Your task to perform on an android device: find snoozed emails in the gmail app Image 0: 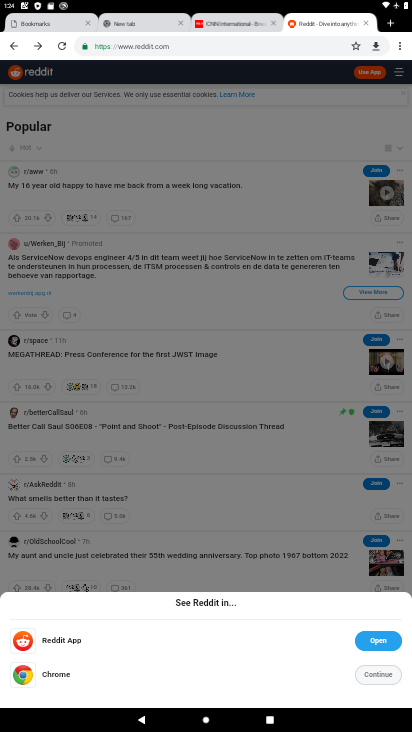
Step 0: press home button
Your task to perform on an android device: find snoozed emails in the gmail app Image 1: 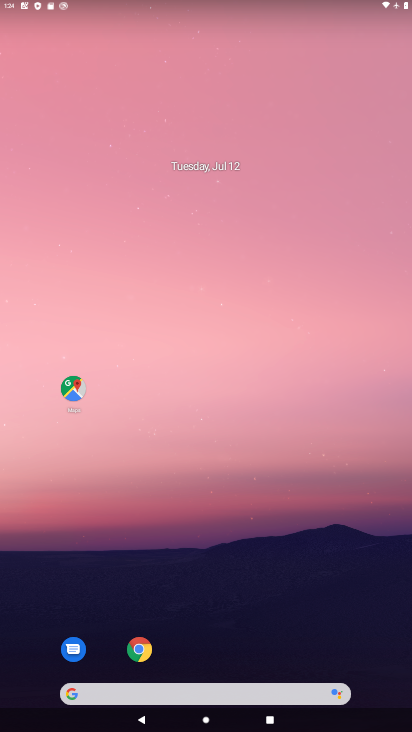
Step 1: drag from (311, 655) to (235, 8)
Your task to perform on an android device: find snoozed emails in the gmail app Image 2: 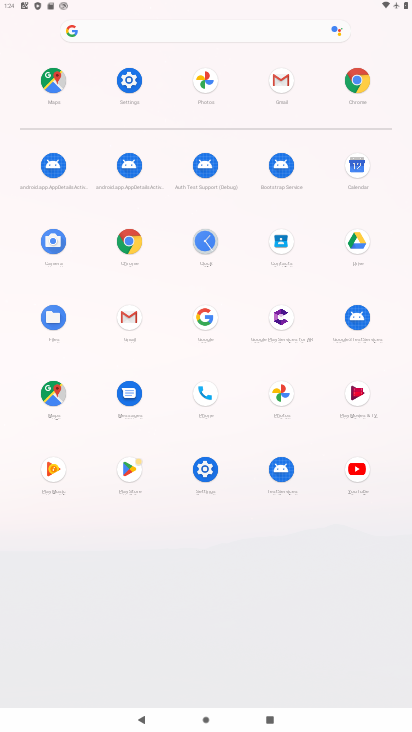
Step 2: click (134, 99)
Your task to perform on an android device: find snoozed emails in the gmail app Image 3: 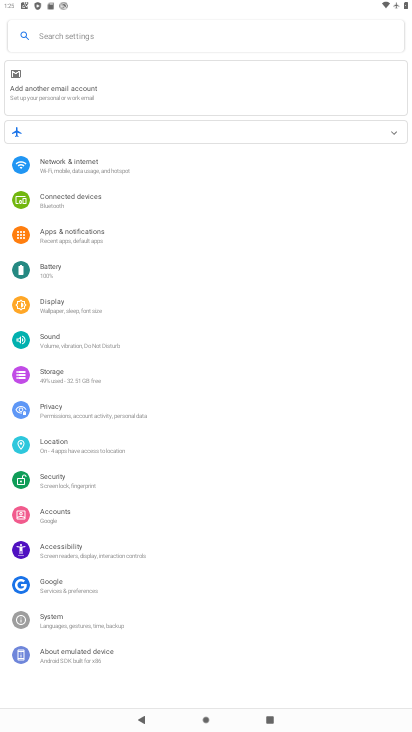
Step 3: press home button
Your task to perform on an android device: find snoozed emails in the gmail app Image 4: 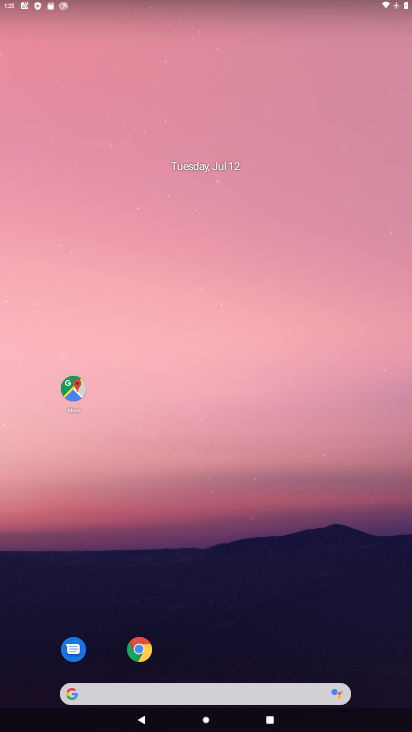
Step 4: drag from (289, 653) to (240, 44)
Your task to perform on an android device: find snoozed emails in the gmail app Image 5: 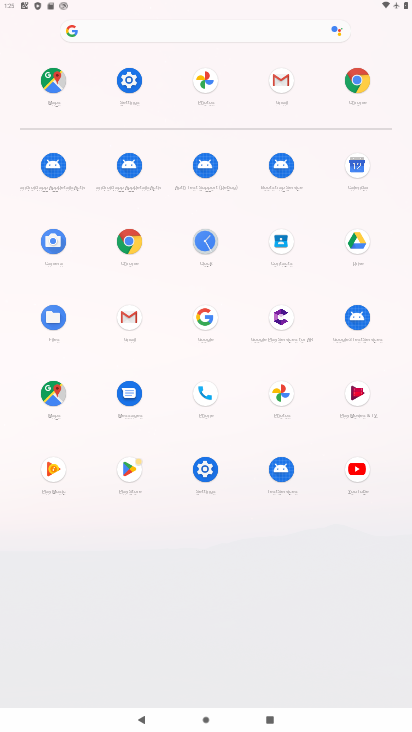
Step 5: click (275, 70)
Your task to perform on an android device: find snoozed emails in the gmail app Image 6: 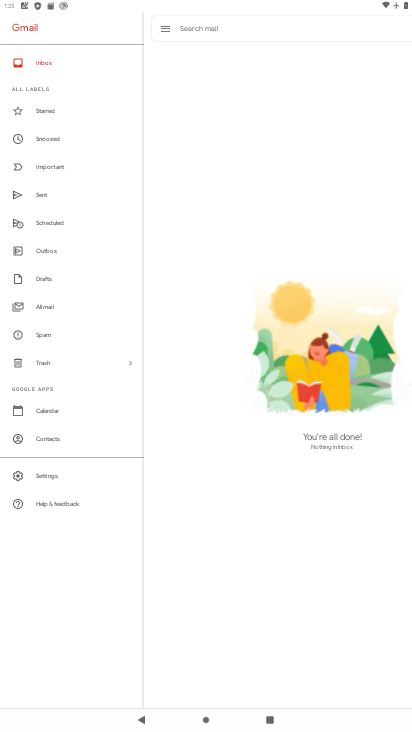
Step 6: click (104, 89)
Your task to perform on an android device: find snoozed emails in the gmail app Image 7: 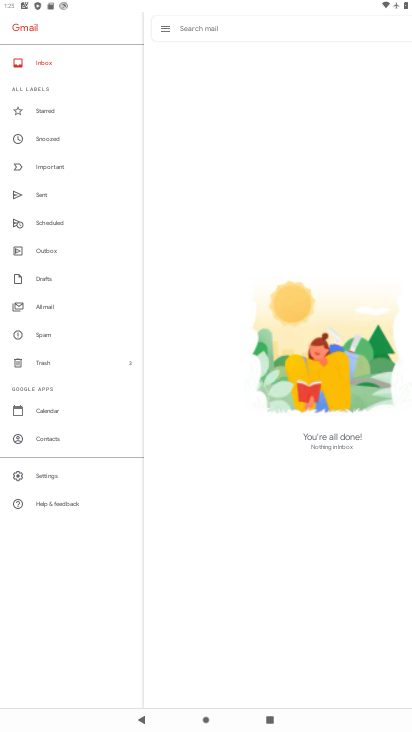
Step 7: task complete